Your task to perform on an android device: turn off data saver in the chrome app Image 0: 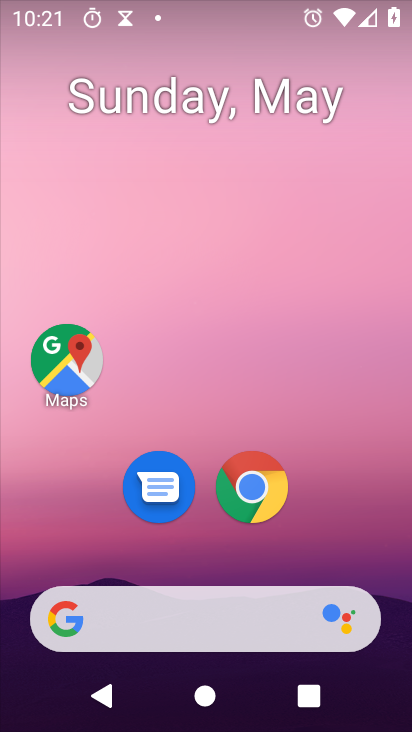
Step 0: click (263, 499)
Your task to perform on an android device: turn off data saver in the chrome app Image 1: 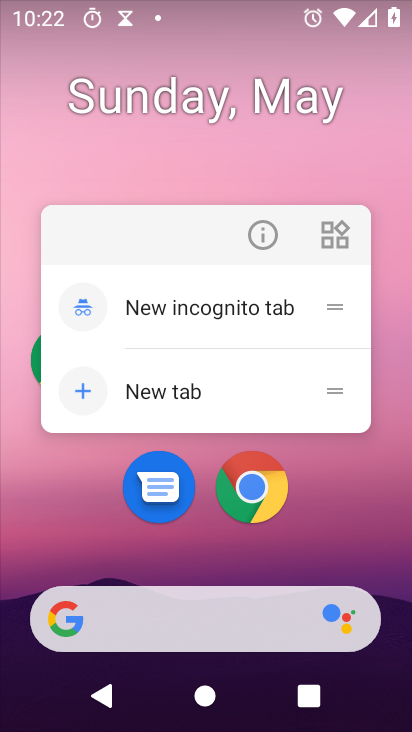
Step 1: click (263, 499)
Your task to perform on an android device: turn off data saver in the chrome app Image 2: 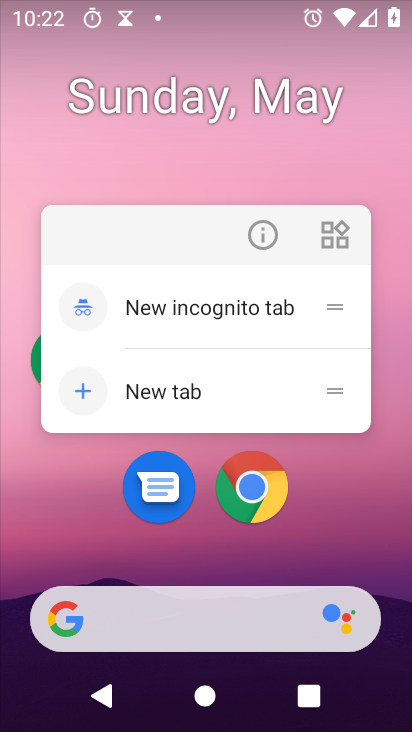
Step 2: drag from (388, 550) to (408, 69)
Your task to perform on an android device: turn off data saver in the chrome app Image 3: 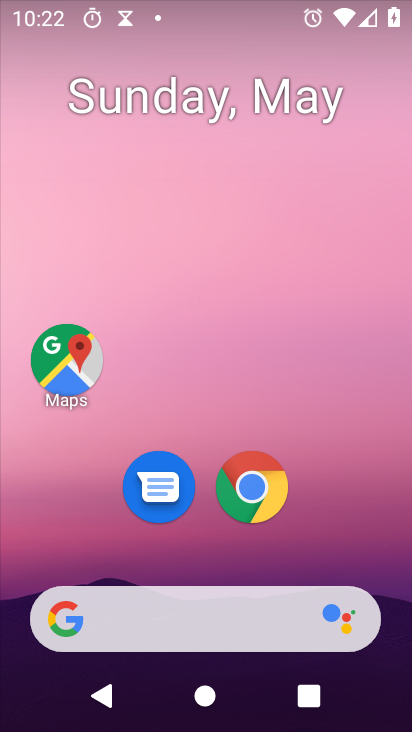
Step 3: click (266, 477)
Your task to perform on an android device: turn off data saver in the chrome app Image 4: 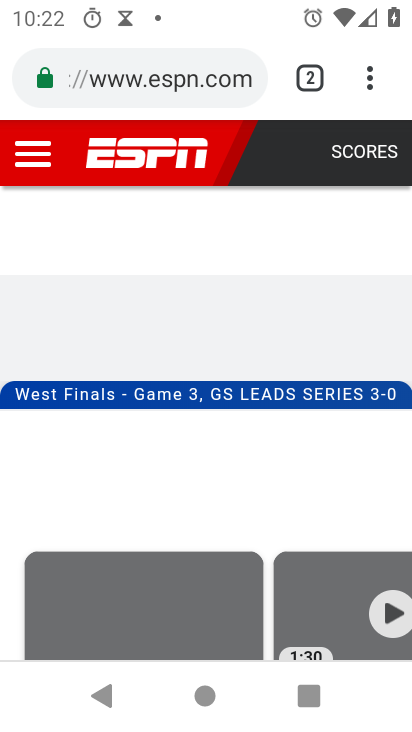
Step 4: drag from (375, 74) to (195, 541)
Your task to perform on an android device: turn off data saver in the chrome app Image 5: 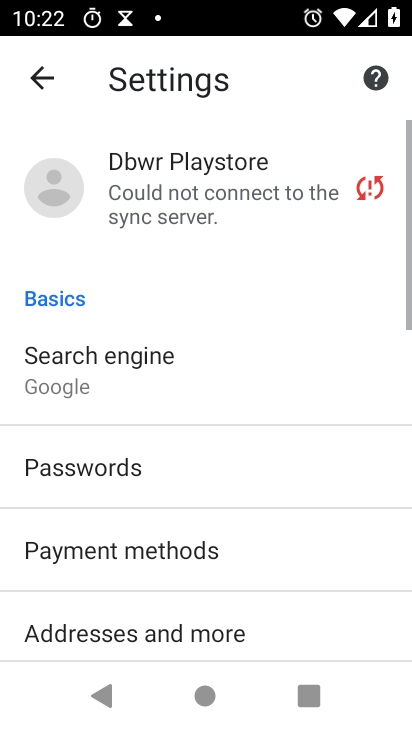
Step 5: drag from (195, 541) to (244, 94)
Your task to perform on an android device: turn off data saver in the chrome app Image 6: 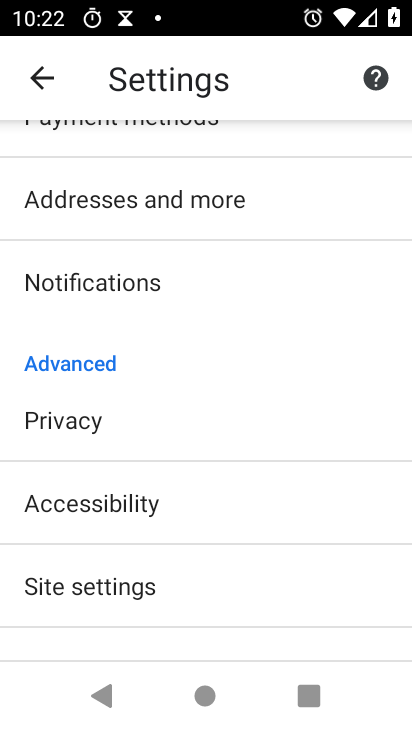
Step 6: drag from (179, 531) to (219, 100)
Your task to perform on an android device: turn off data saver in the chrome app Image 7: 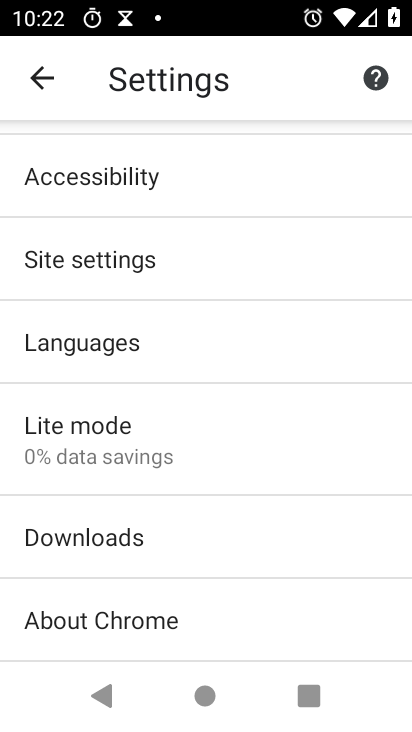
Step 7: click (53, 273)
Your task to perform on an android device: turn off data saver in the chrome app Image 8: 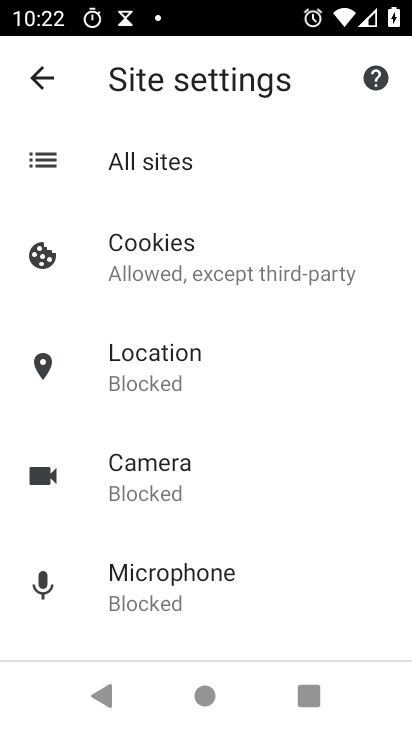
Step 8: click (26, 76)
Your task to perform on an android device: turn off data saver in the chrome app Image 9: 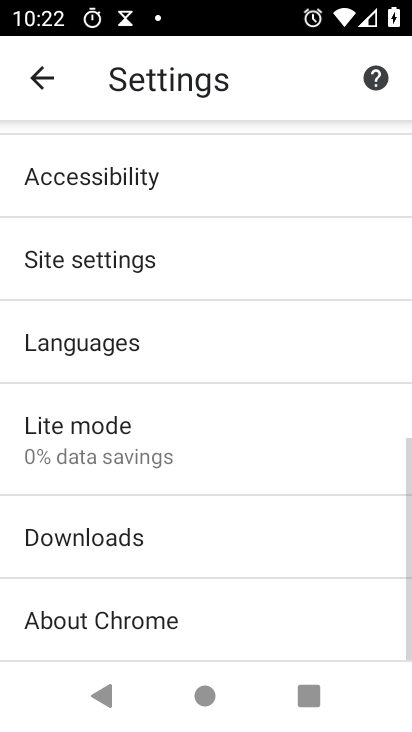
Step 9: click (89, 426)
Your task to perform on an android device: turn off data saver in the chrome app Image 10: 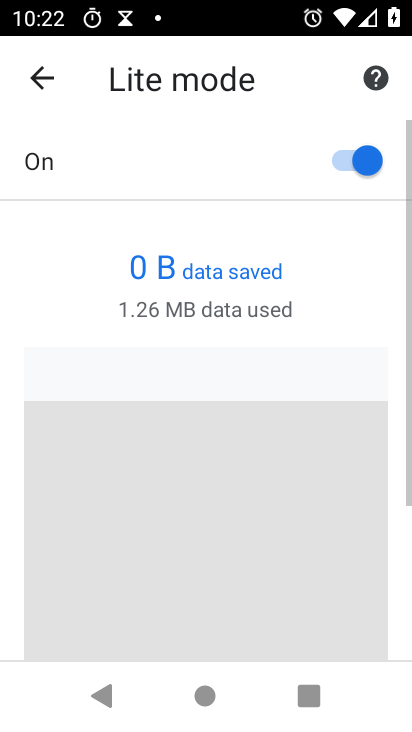
Step 10: click (361, 150)
Your task to perform on an android device: turn off data saver in the chrome app Image 11: 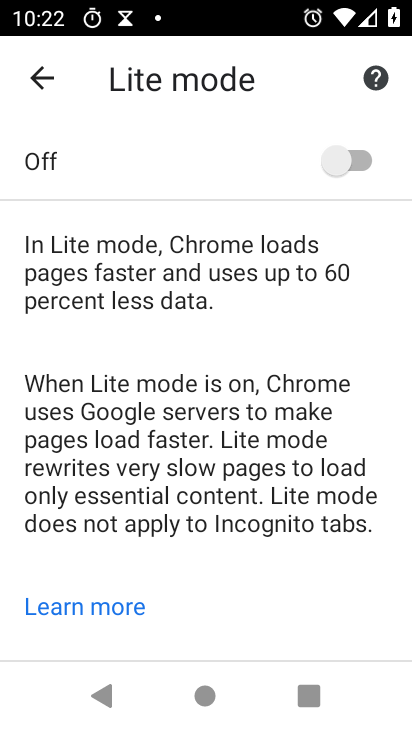
Step 11: task complete